Your task to perform on an android device: visit the assistant section in the google photos Image 0: 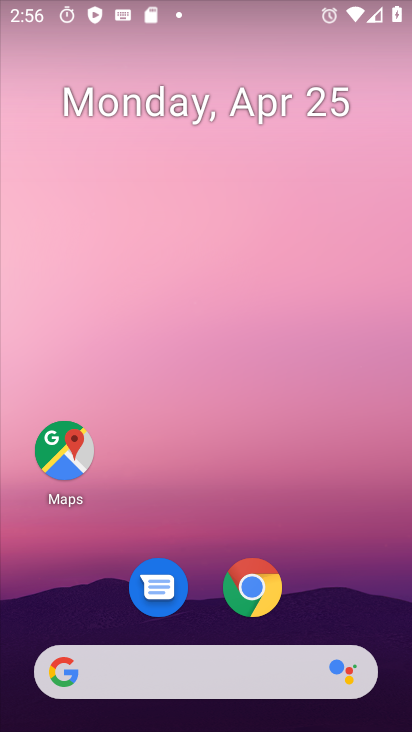
Step 0: drag from (342, 207) to (311, 66)
Your task to perform on an android device: visit the assistant section in the google photos Image 1: 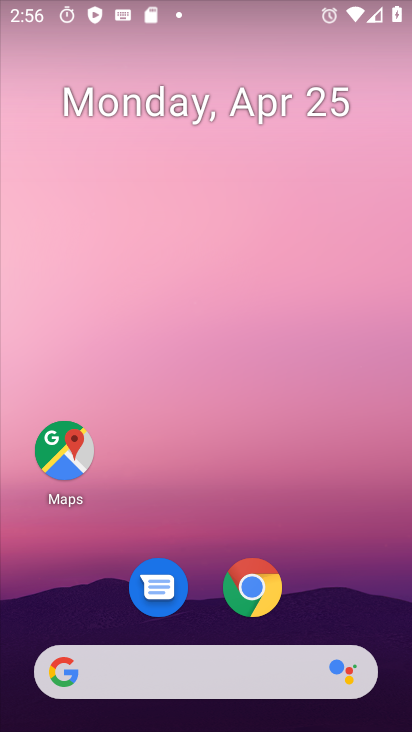
Step 1: drag from (329, 507) to (278, 28)
Your task to perform on an android device: visit the assistant section in the google photos Image 2: 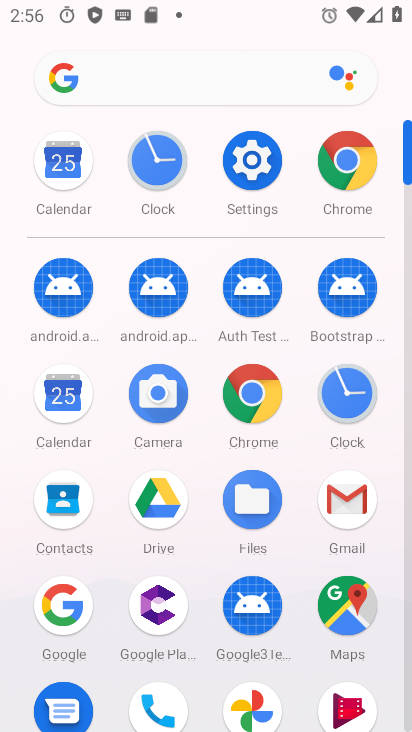
Step 2: drag from (272, 591) to (310, 211)
Your task to perform on an android device: visit the assistant section in the google photos Image 3: 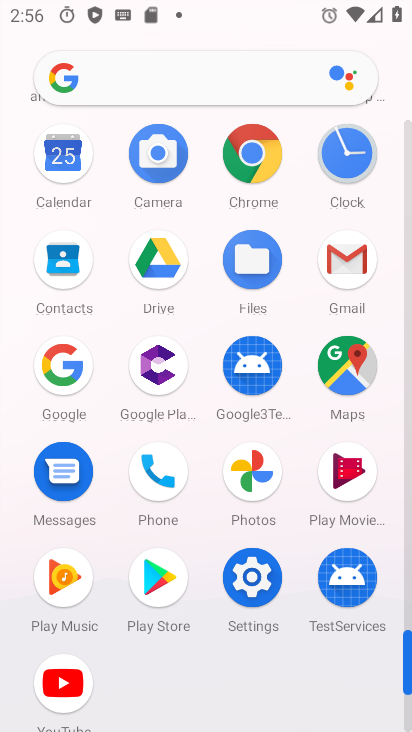
Step 3: click (259, 479)
Your task to perform on an android device: visit the assistant section in the google photos Image 4: 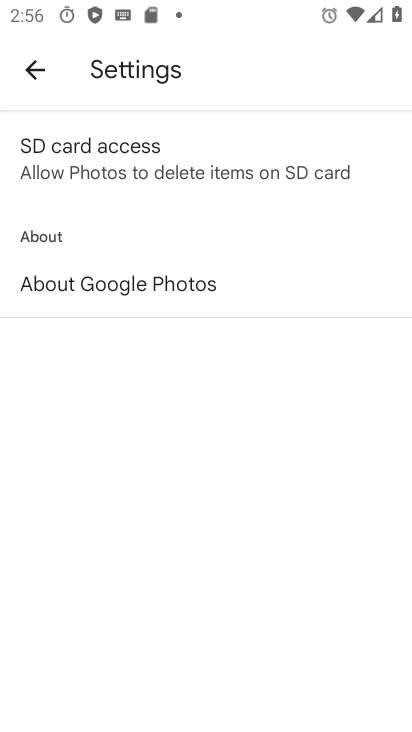
Step 4: click (35, 62)
Your task to perform on an android device: visit the assistant section in the google photos Image 5: 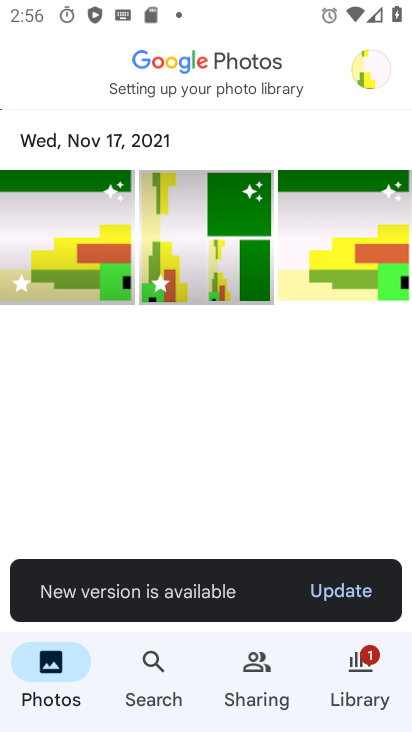
Step 5: click (360, 671)
Your task to perform on an android device: visit the assistant section in the google photos Image 6: 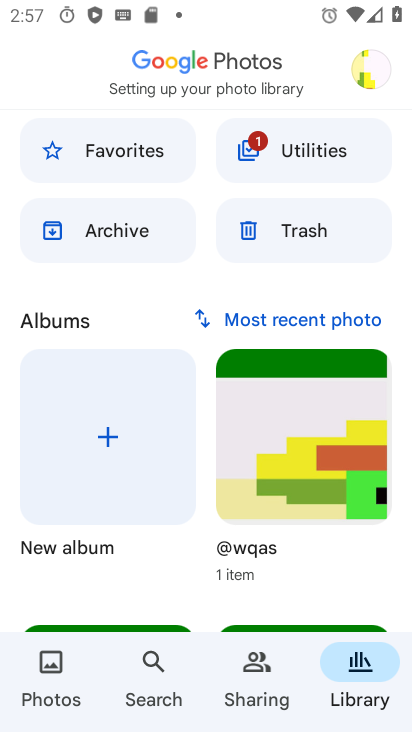
Step 6: task complete